Your task to perform on an android device: Search for Italian restaurants on Maps Image 0: 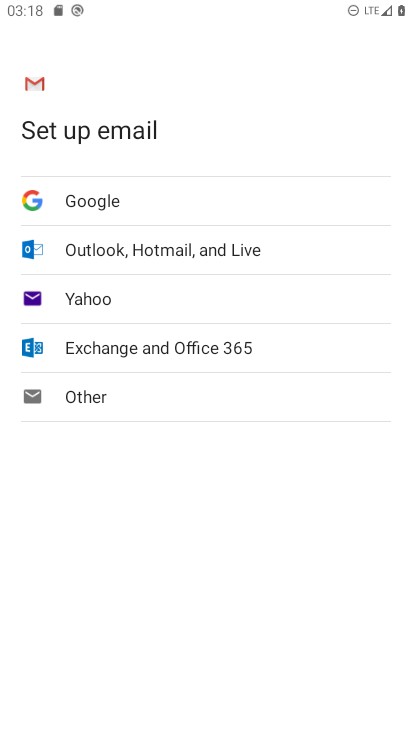
Step 0: press home button
Your task to perform on an android device: Search for Italian restaurants on Maps Image 1: 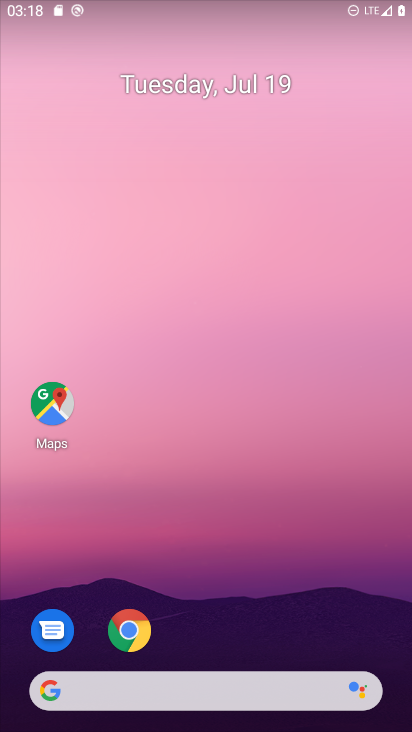
Step 1: click (53, 406)
Your task to perform on an android device: Search for Italian restaurants on Maps Image 2: 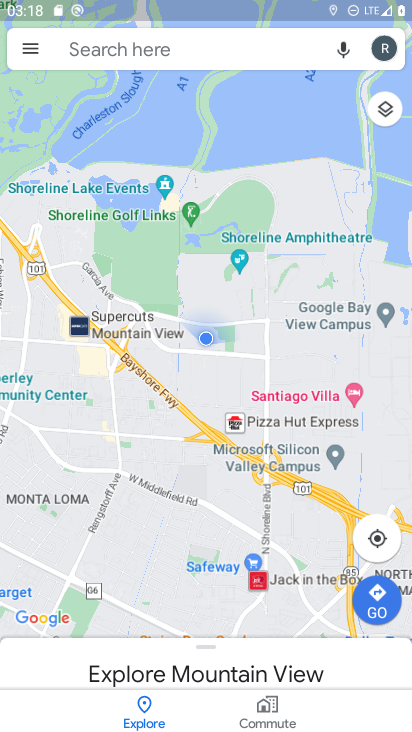
Step 2: click (163, 40)
Your task to perform on an android device: Search for Italian restaurants on Maps Image 3: 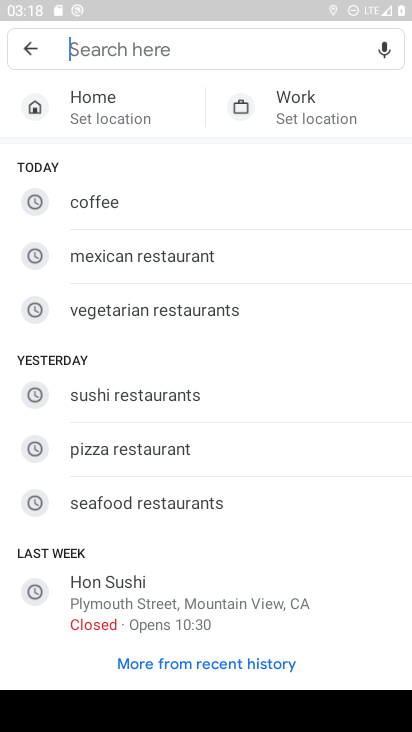
Step 3: type "italian restaurants"
Your task to perform on an android device: Search for Italian restaurants on Maps Image 4: 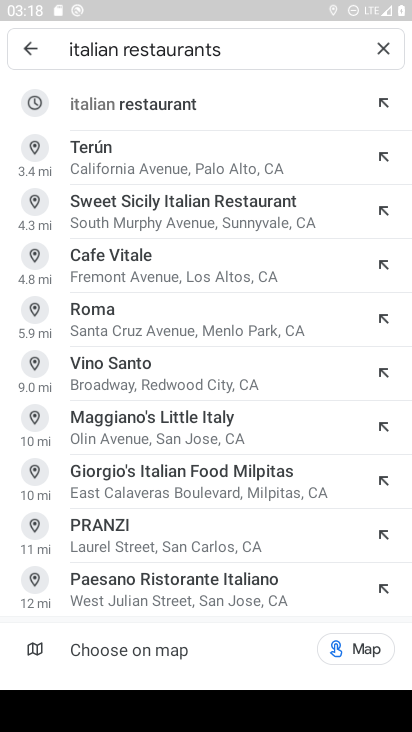
Step 4: click (122, 108)
Your task to perform on an android device: Search for Italian restaurants on Maps Image 5: 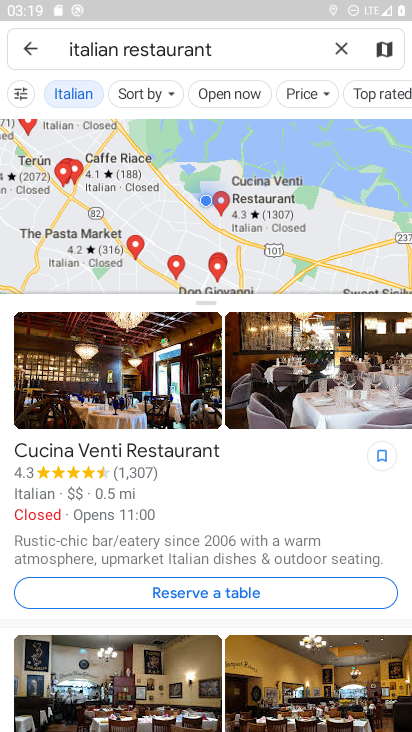
Step 5: task complete